Your task to perform on an android device: clear history in the chrome app Image 0: 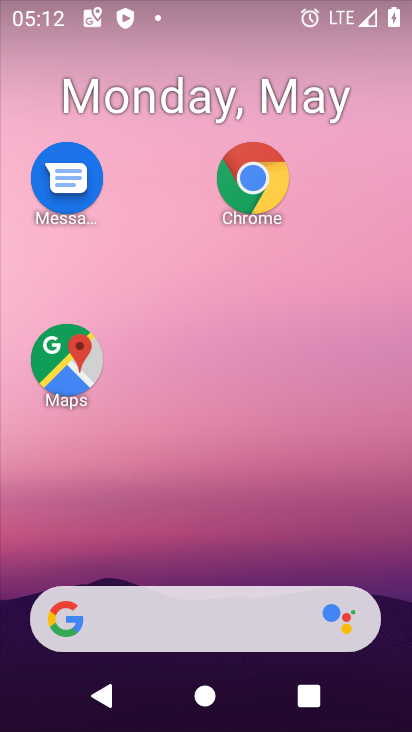
Step 0: drag from (214, 580) to (213, 2)
Your task to perform on an android device: clear history in the chrome app Image 1: 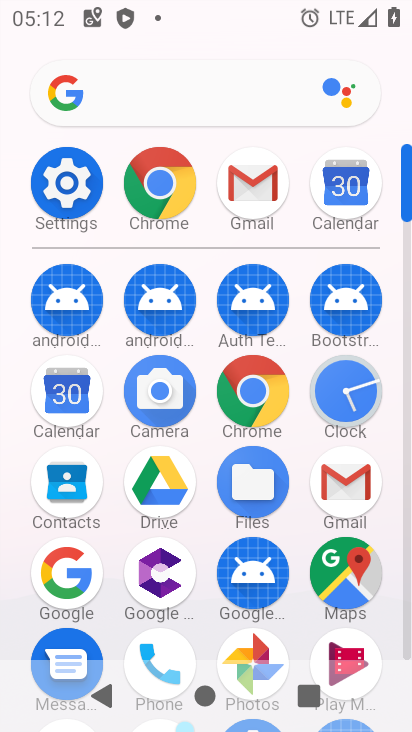
Step 1: click (146, 171)
Your task to perform on an android device: clear history in the chrome app Image 2: 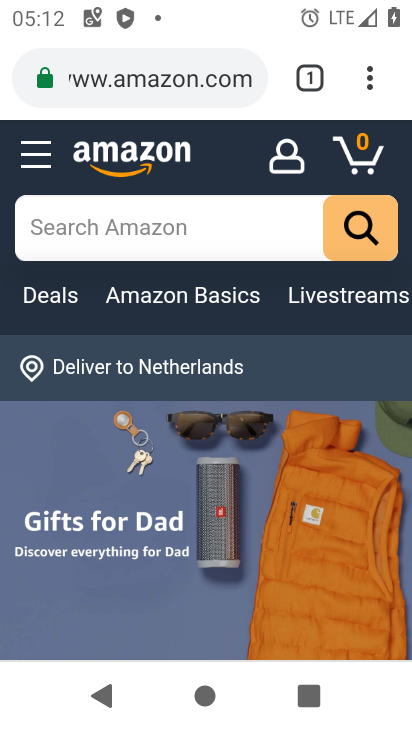
Step 2: click (375, 85)
Your task to perform on an android device: clear history in the chrome app Image 3: 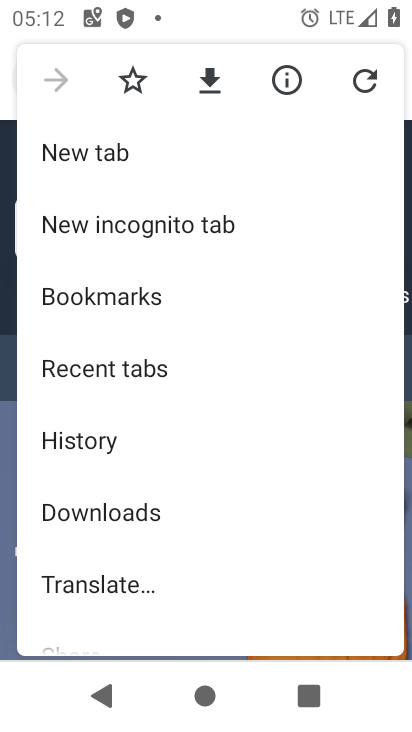
Step 3: click (108, 447)
Your task to perform on an android device: clear history in the chrome app Image 4: 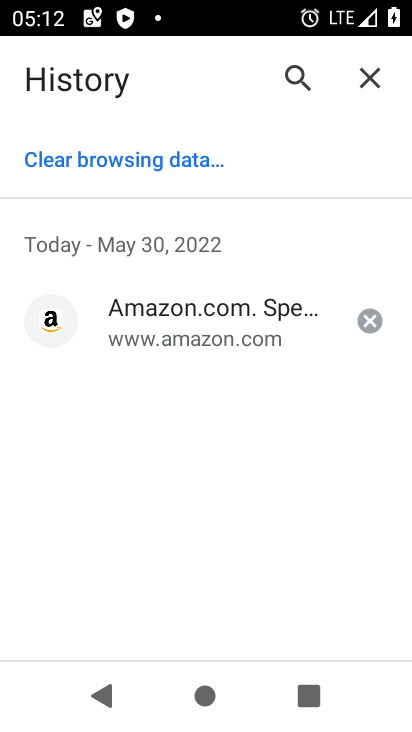
Step 4: click (79, 164)
Your task to perform on an android device: clear history in the chrome app Image 5: 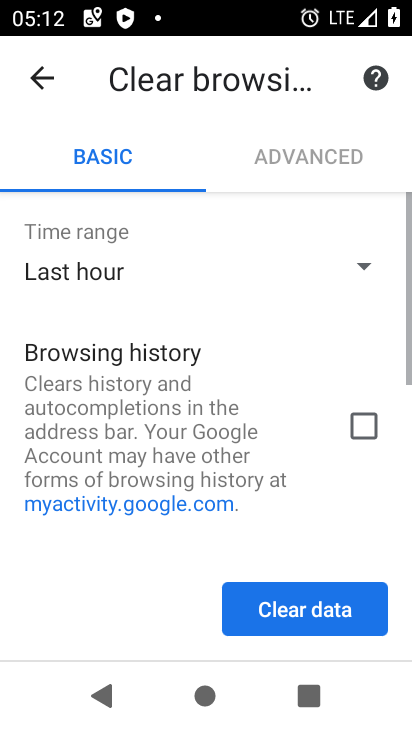
Step 5: click (376, 435)
Your task to perform on an android device: clear history in the chrome app Image 6: 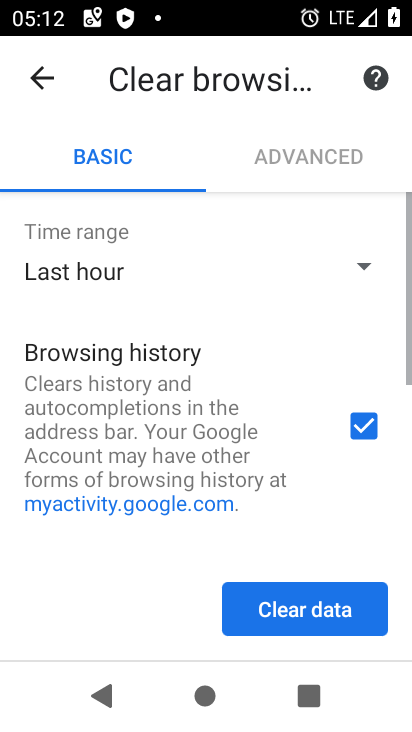
Step 6: drag from (40, 568) to (66, 79)
Your task to perform on an android device: clear history in the chrome app Image 7: 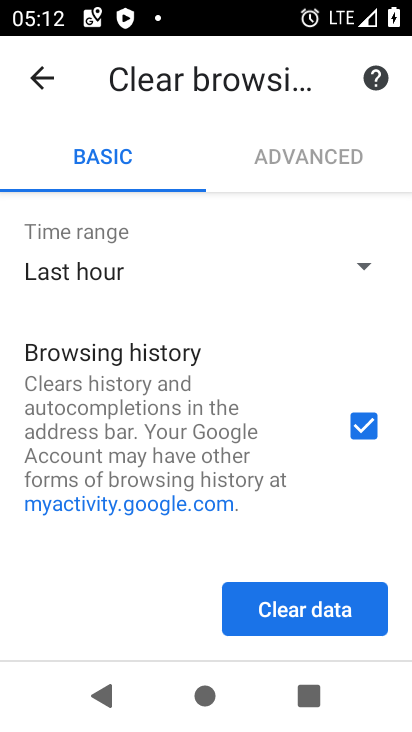
Step 7: drag from (241, 562) to (239, 277)
Your task to perform on an android device: clear history in the chrome app Image 8: 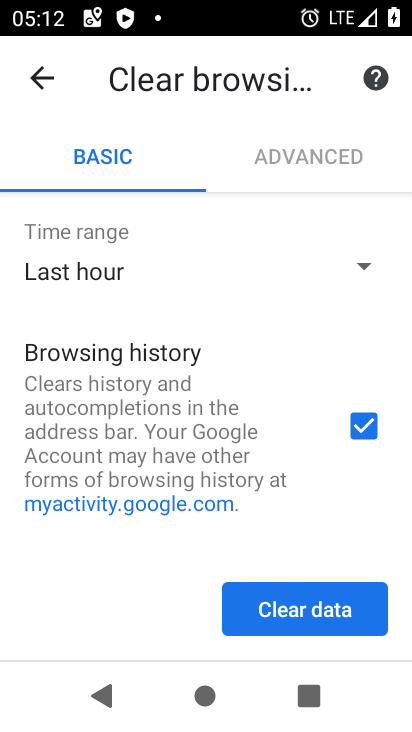
Step 8: drag from (97, 570) to (162, 121)
Your task to perform on an android device: clear history in the chrome app Image 9: 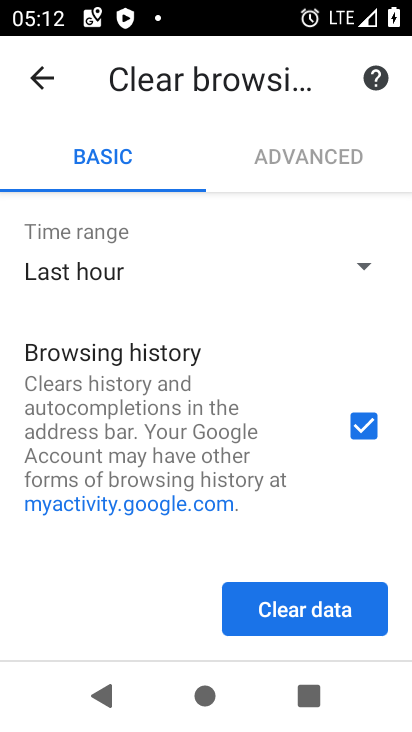
Step 9: drag from (253, 495) to (222, 175)
Your task to perform on an android device: clear history in the chrome app Image 10: 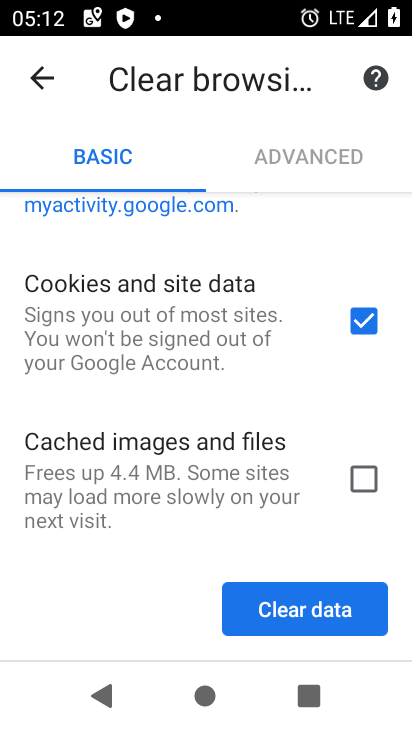
Step 10: click (376, 485)
Your task to perform on an android device: clear history in the chrome app Image 11: 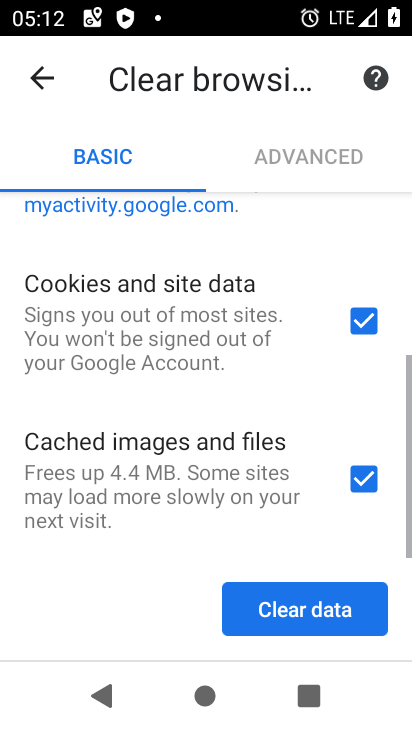
Step 11: click (275, 627)
Your task to perform on an android device: clear history in the chrome app Image 12: 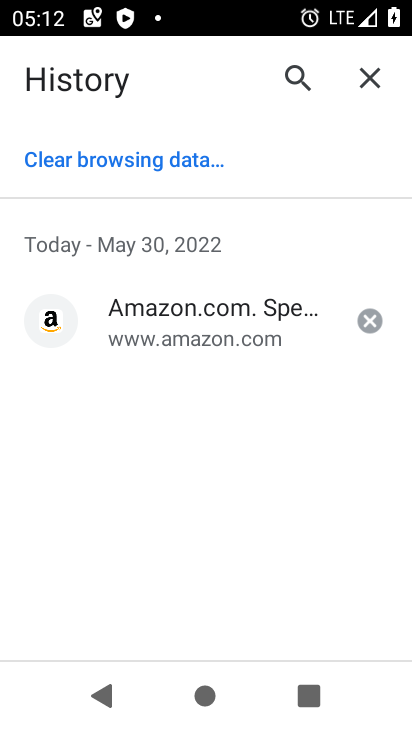
Step 12: task complete